Your task to perform on an android device: Go to settings Image 0: 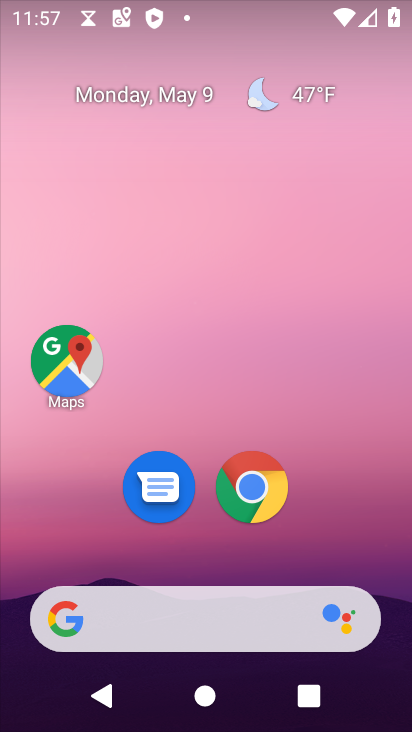
Step 0: drag from (210, 556) to (216, 125)
Your task to perform on an android device: Go to settings Image 1: 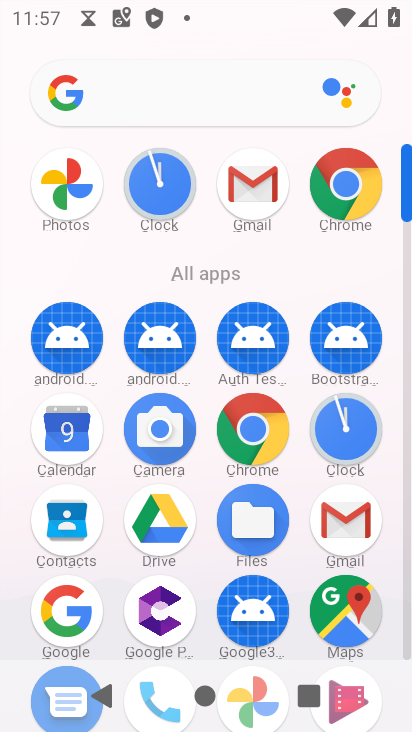
Step 1: drag from (205, 569) to (214, 167)
Your task to perform on an android device: Go to settings Image 2: 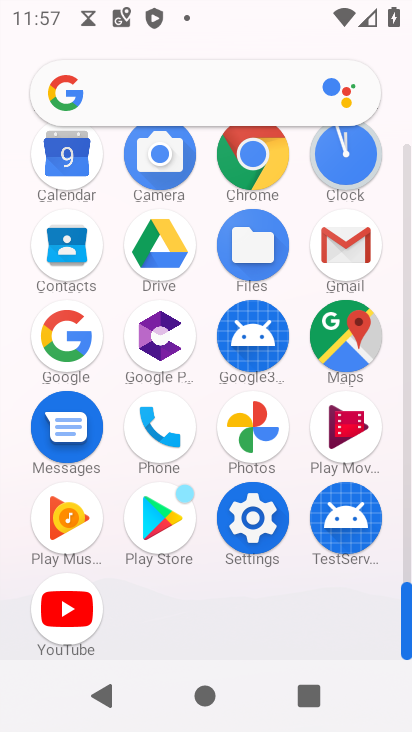
Step 2: click (250, 512)
Your task to perform on an android device: Go to settings Image 3: 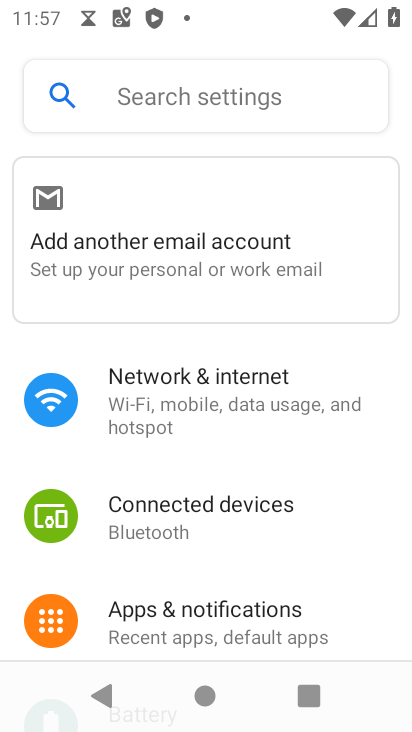
Step 3: task complete